Your task to perform on an android device: Show me the alarms in the clock app Image 0: 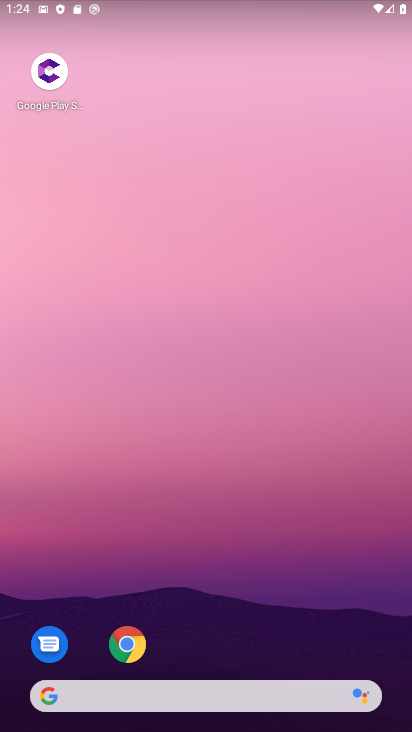
Step 0: drag from (222, 633) to (122, 10)
Your task to perform on an android device: Show me the alarms in the clock app Image 1: 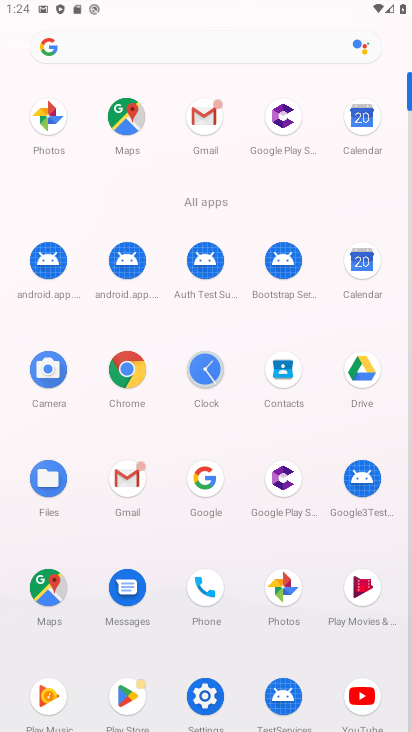
Step 1: click (206, 364)
Your task to perform on an android device: Show me the alarms in the clock app Image 2: 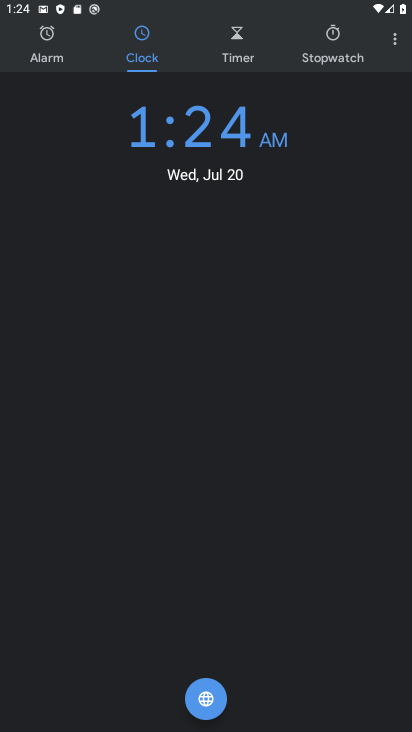
Step 2: click (43, 39)
Your task to perform on an android device: Show me the alarms in the clock app Image 3: 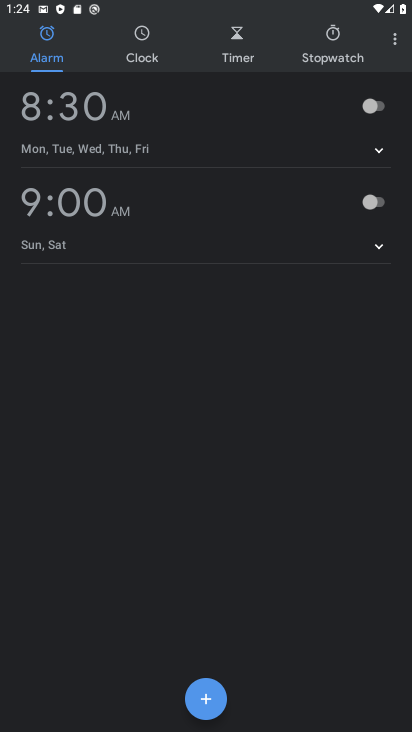
Step 3: task complete